Your task to perform on an android device: Open wifi settings Image 0: 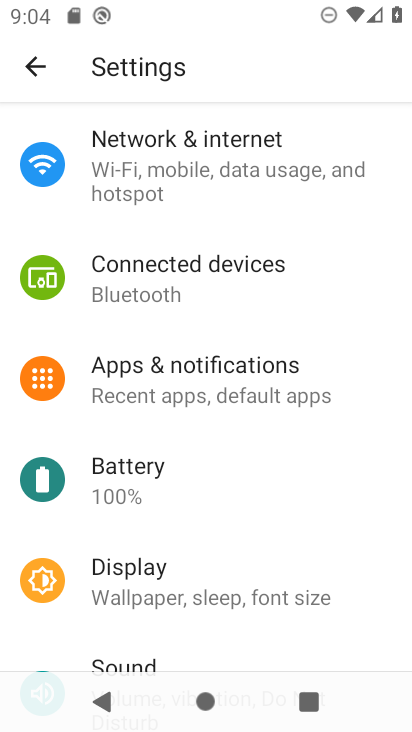
Step 0: click (226, 162)
Your task to perform on an android device: Open wifi settings Image 1: 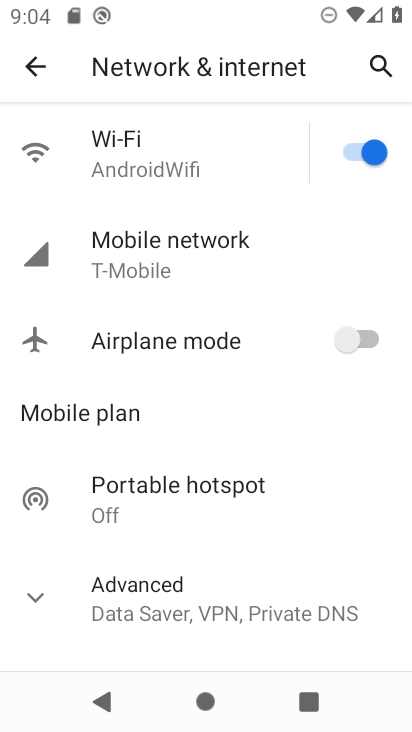
Step 1: click (208, 155)
Your task to perform on an android device: Open wifi settings Image 2: 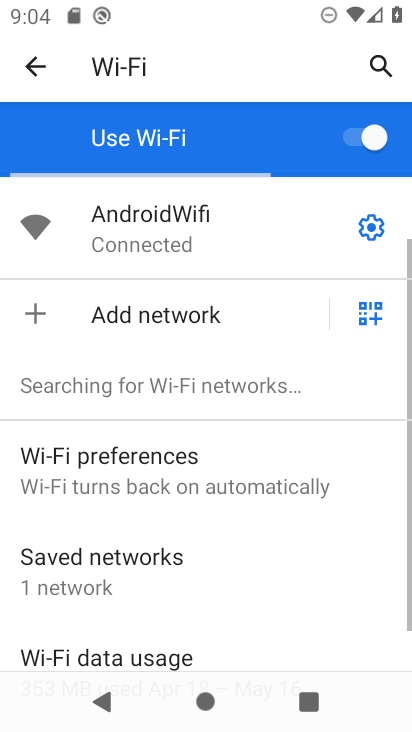
Step 2: task complete